Your task to perform on an android device: turn on location history Image 0: 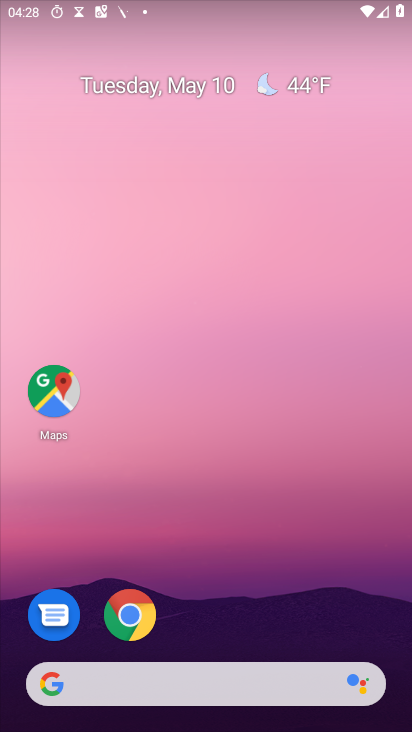
Step 0: drag from (330, 665) to (305, 111)
Your task to perform on an android device: turn on location history Image 1: 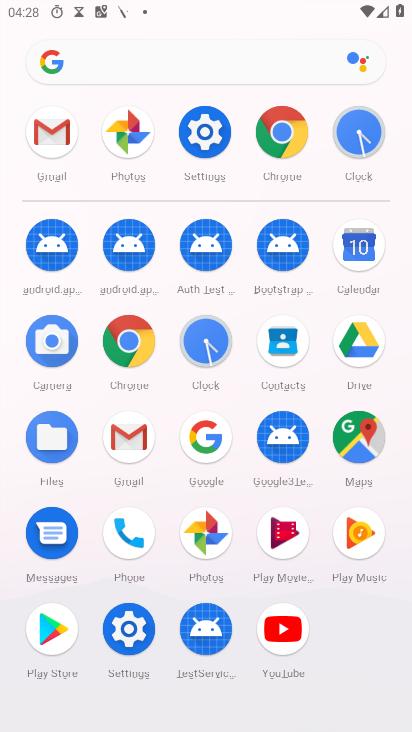
Step 1: click (205, 129)
Your task to perform on an android device: turn on location history Image 2: 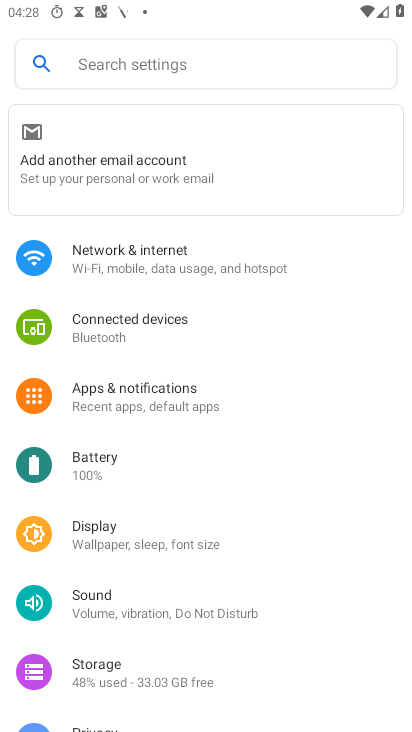
Step 2: drag from (194, 667) to (188, 142)
Your task to perform on an android device: turn on location history Image 3: 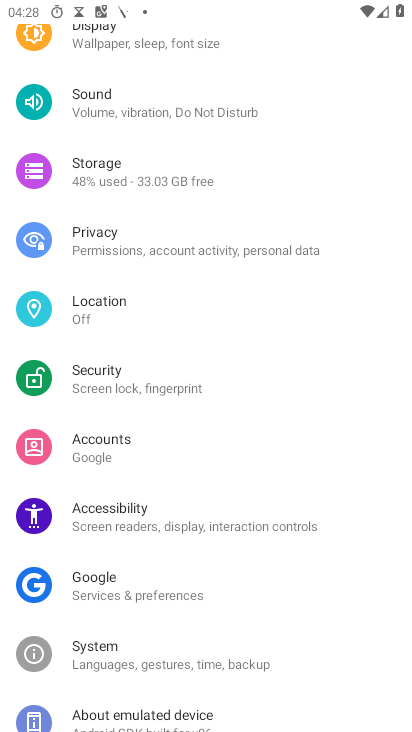
Step 3: click (137, 310)
Your task to perform on an android device: turn on location history Image 4: 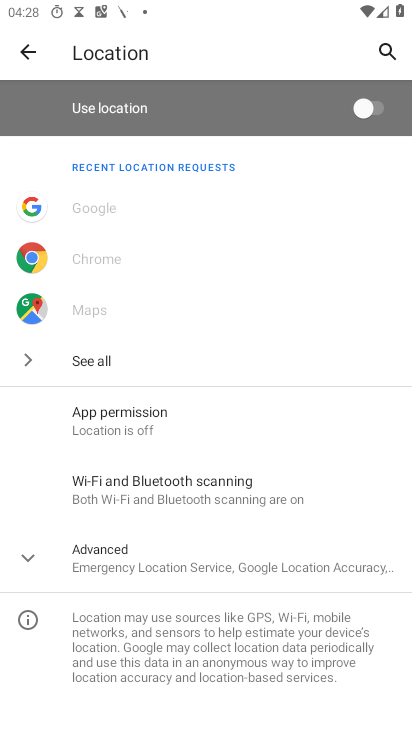
Step 4: drag from (307, 654) to (261, 230)
Your task to perform on an android device: turn on location history Image 5: 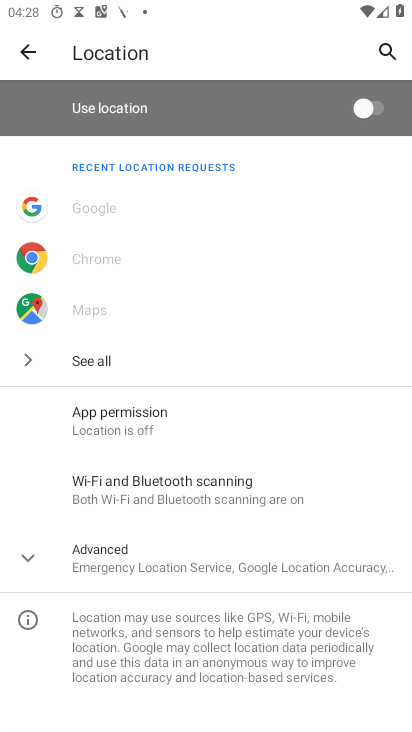
Step 5: click (197, 569)
Your task to perform on an android device: turn on location history Image 6: 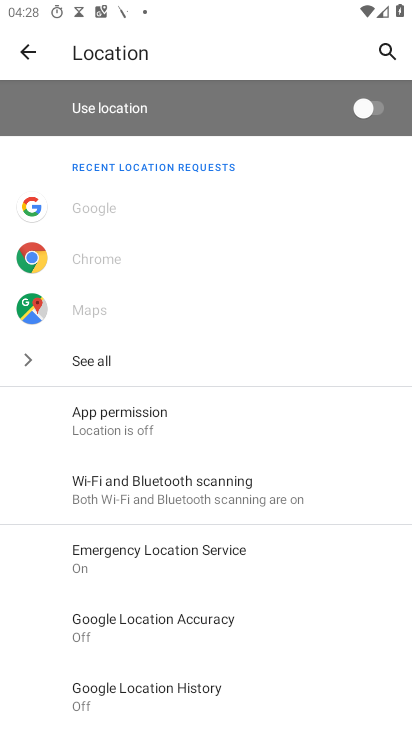
Step 6: click (205, 682)
Your task to perform on an android device: turn on location history Image 7: 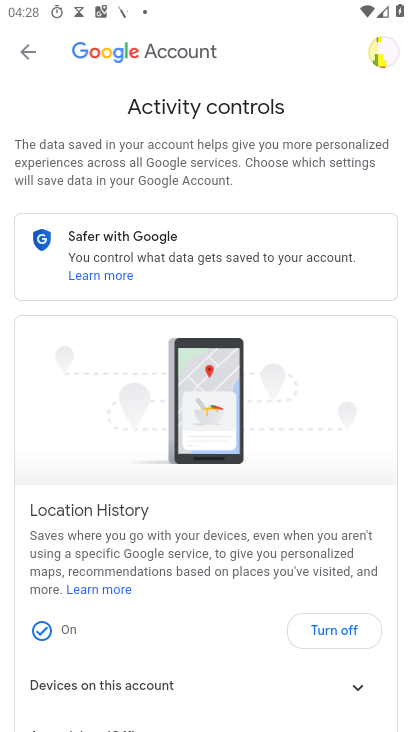
Step 7: task complete